Your task to perform on an android device: Open Google Chrome and open the bookmarks view Image 0: 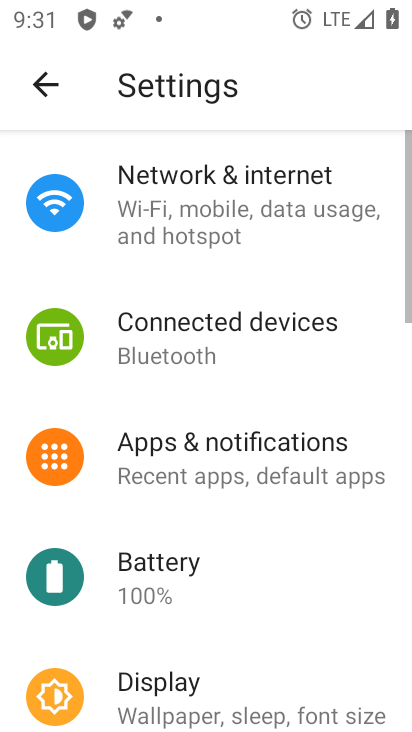
Step 0: press home button
Your task to perform on an android device: Open Google Chrome and open the bookmarks view Image 1: 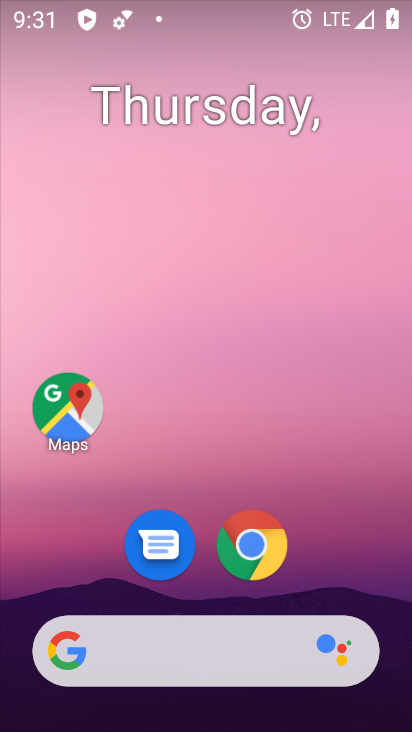
Step 1: click (252, 546)
Your task to perform on an android device: Open Google Chrome and open the bookmarks view Image 2: 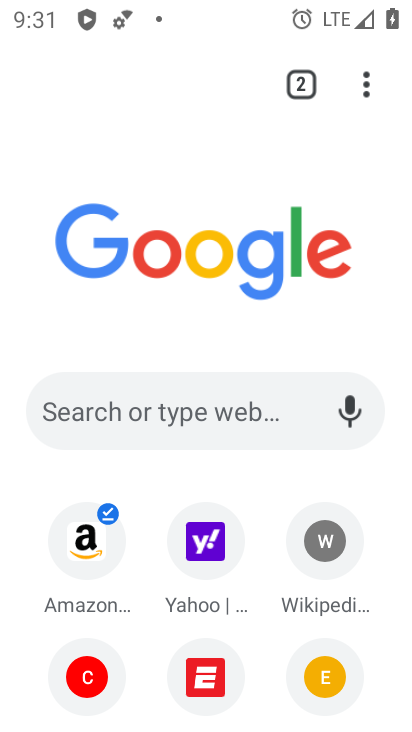
Step 2: click (360, 95)
Your task to perform on an android device: Open Google Chrome and open the bookmarks view Image 3: 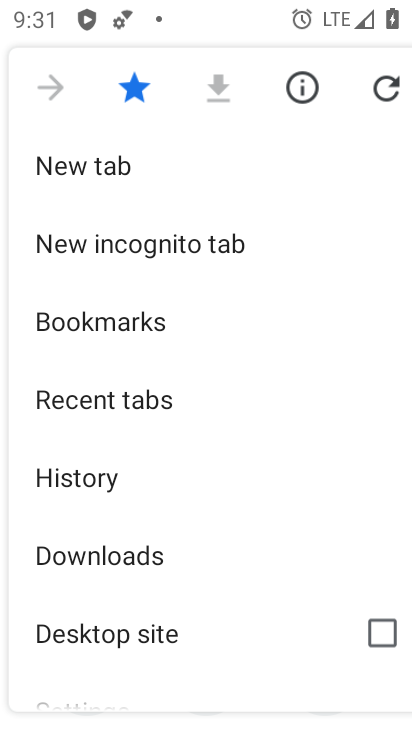
Step 3: click (138, 321)
Your task to perform on an android device: Open Google Chrome and open the bookmarks view Image 4: 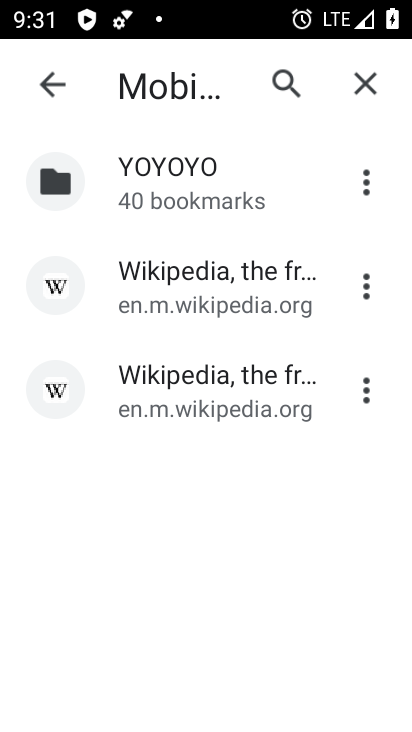
Step 4: click (365, 185)
Your task to perform on an android device: Open Google Chrome and open the bookmarks view Image 5: 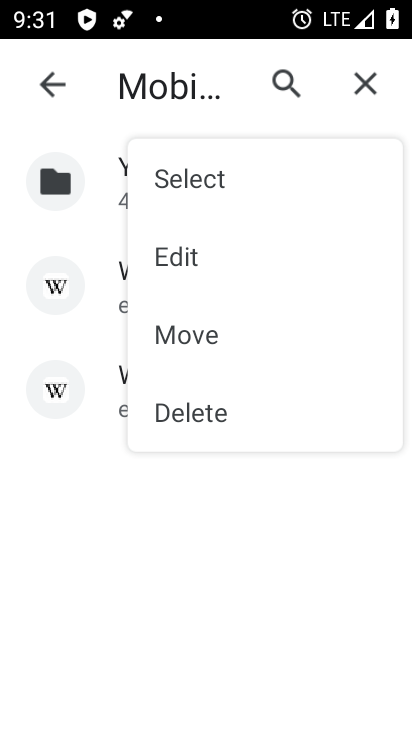
Step 5: click (174, 253)
Your task to perform on an android device: Open Google Chrome and open the bookmarks view Image 6: 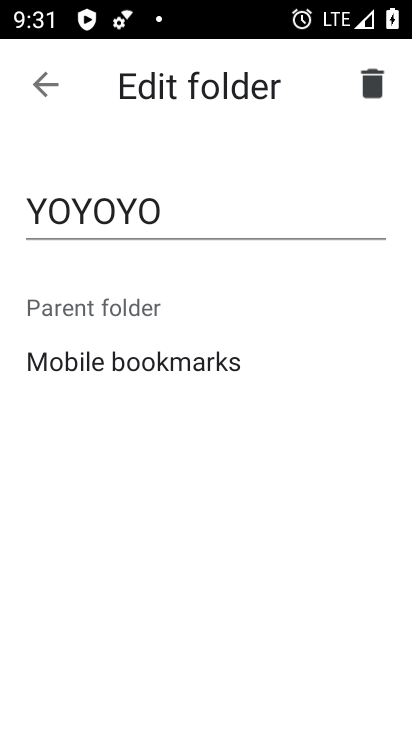
Step 6: task complete